Your task to perform on an android device: What's the weather going to be this weekend? Image 0: 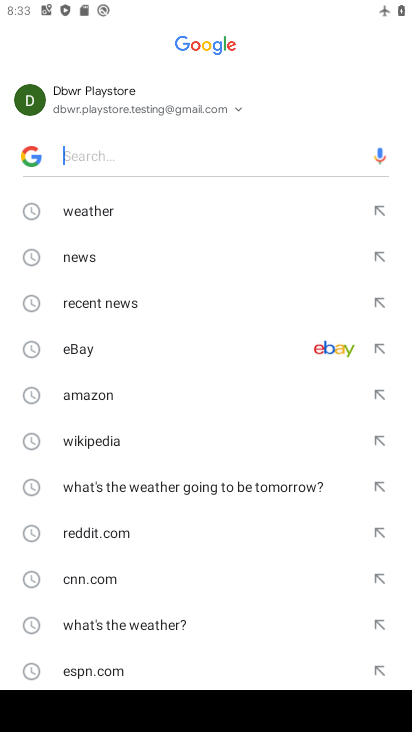
Step 0: press back button
Your task to perform on an android device: What's the weather going to be this weekend? Image 1: 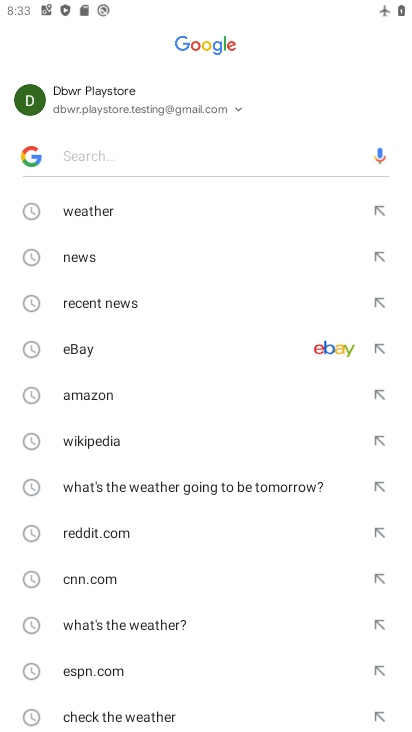
Step 1: press back button
Your task to perform on an android device: What's the weather going to be this weekend? Image 2: 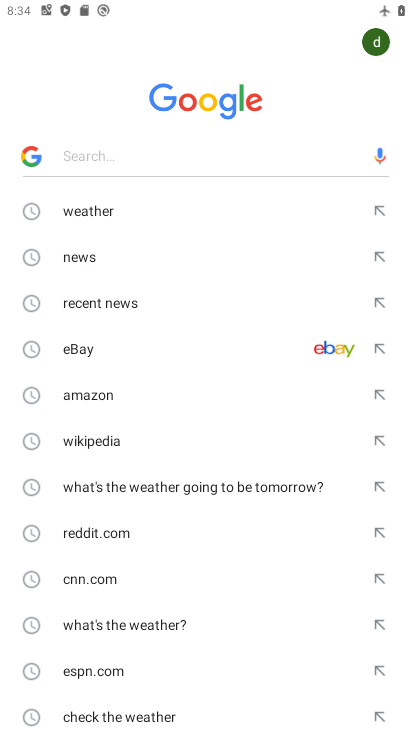
Step 2: press back button
Your task to perform on an android device: What's the weather going to be this weekend? Image 3: 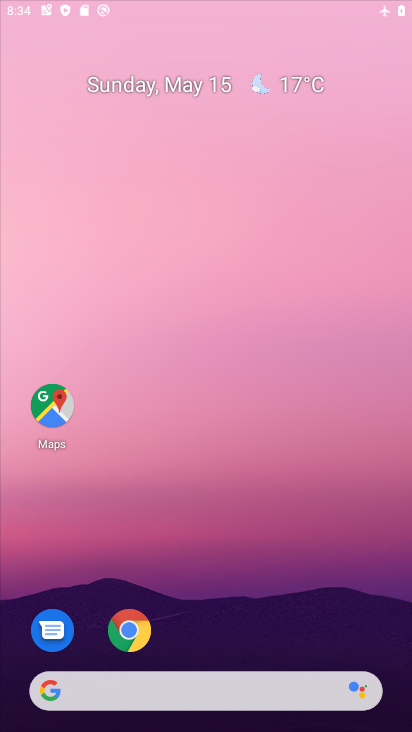
Step 3: press back button
Your task to perform on an android device: What's the weather going to be this weekend? Image 4: 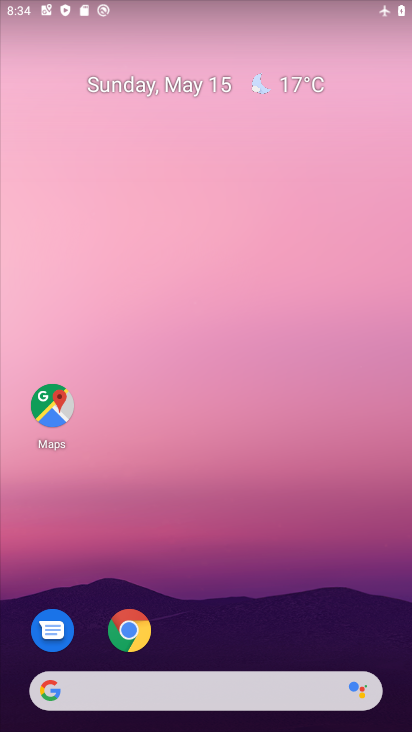
Step 4: click (303, 81)
Your task to perform on an android device: What's the weather going to be this weekend? Image 5: 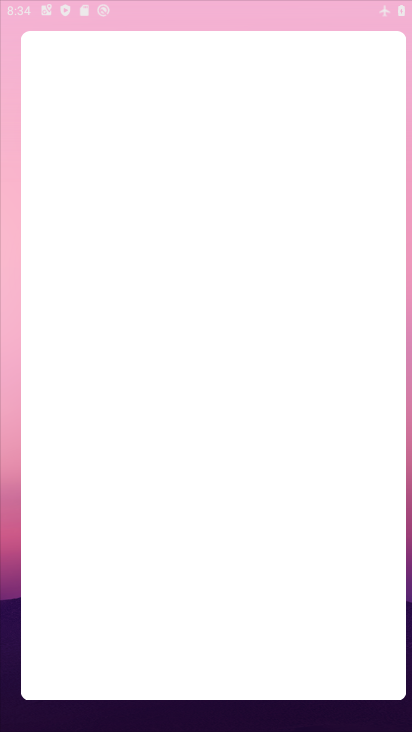
Step 5: click (302, 85)
Your task to perform on an android device: What's the weather going to be this weekend? Image 6: 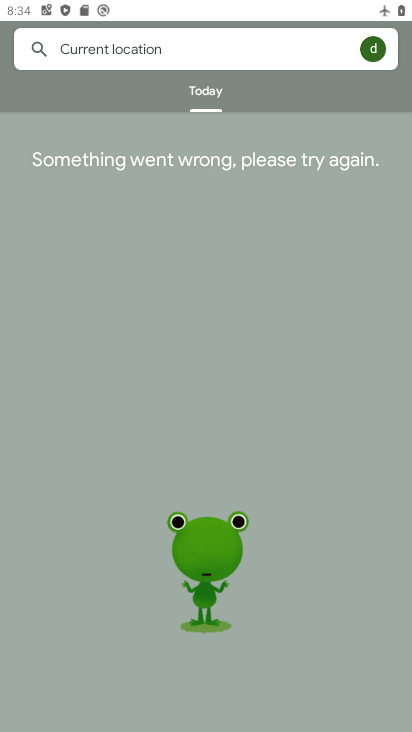
Step 6: task complete